Your task to perform on an android device: open app "Facebook Messenger" (install if not already installed) Image 0: 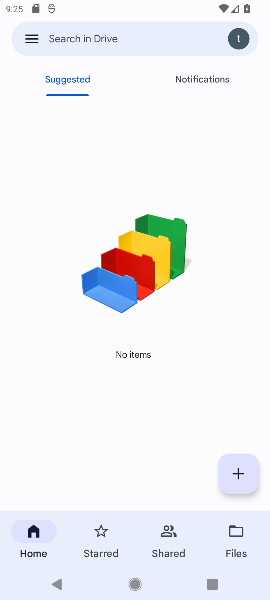
Step 0: press home button
Your task to perform on an android device: open app "Facebook Messenger" (install if not already installed) Image 1: 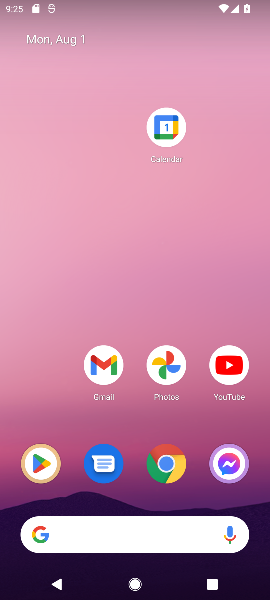
Step 1: drag from (137, 511) to (66, 42)
Your task to perform on an android device: open app "Facebook Messenger" (install if not already installed) Image 2: 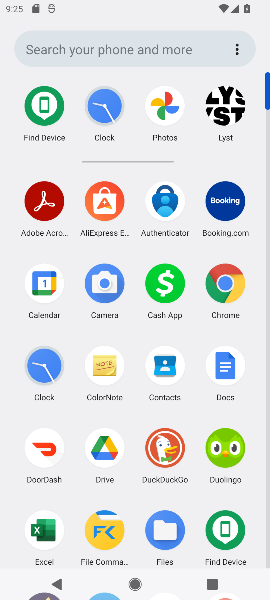
Step 2: drag from (268, 561) to (264, 591)
Your task to perform on an android device: open app "Facebook Messenger" (install if not already installed) Image 3: 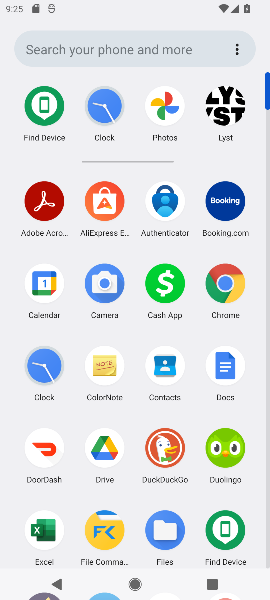
Step 3: click (264, 591)
Your task to perform on an android device: open app "Facebook Messenger" (install if not already installed) Image 4: 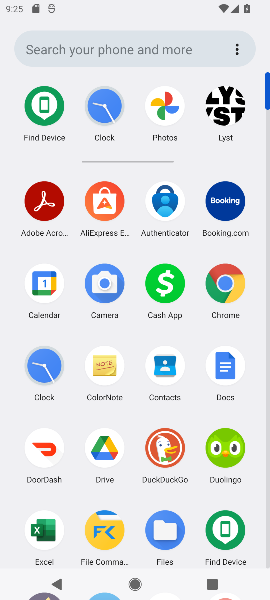
Step 4: click (269, 592)
Your task to perform on an android device: open app "Facebook Messenger" (install if not already installed) Image 5: 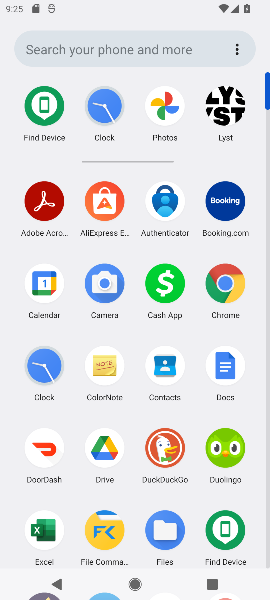
Step 5: click (269, 592)
Your task to perform on an android device: open app "Facebook Messenger" (install if not already installed) Image 6: 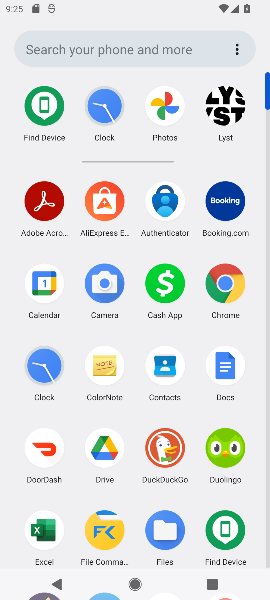
Step 6: click (269, 592)
Your task to perform on an android device: open app "Facebook Messenger" (install if not already installed) Image 7: 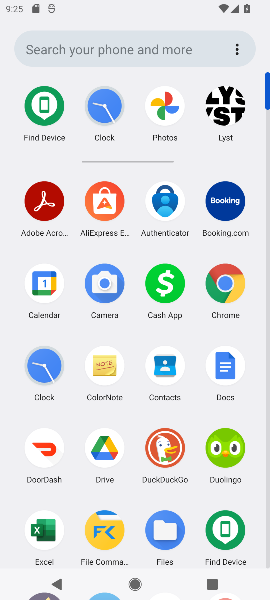
Step 7: click (269, 592)
Your task to perform on an android device: open app "Facebook Messenger" (install if not already installed) Image 8: 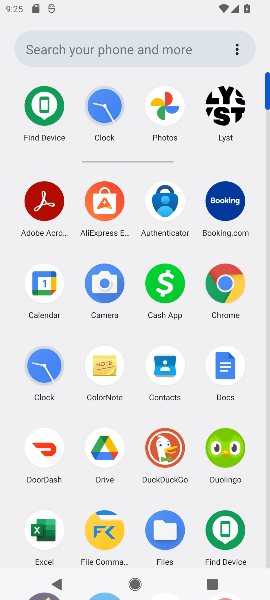
Step 8: click (269, 592)
Your task to perform on an android device: open app "Facebook Messenger" (install if not already installed) Image 9: 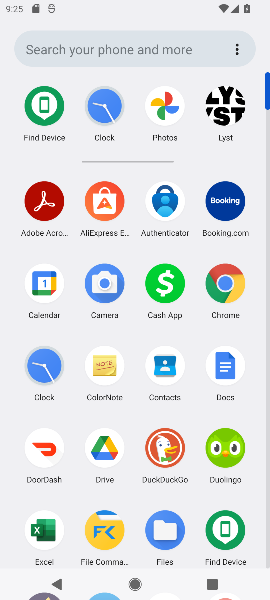
Step 9: drag from (177, 563) to (158, 144)
Your task to perform on an android device: open app "Facebook Messenger" (install if not already installed) Image 10: 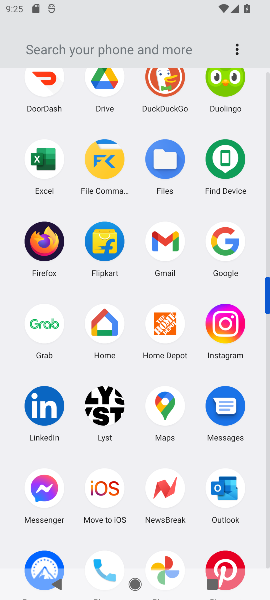
Step 10: click (57, 513)
Your task to perform on an android device: open app "Facebook Messenger" (install if not already installed) Image 11: 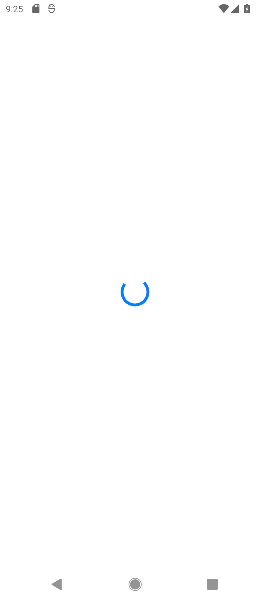
Step 11: task complete